Your task to perform on an android device: What's the weather going to be this weekend? Image 0: 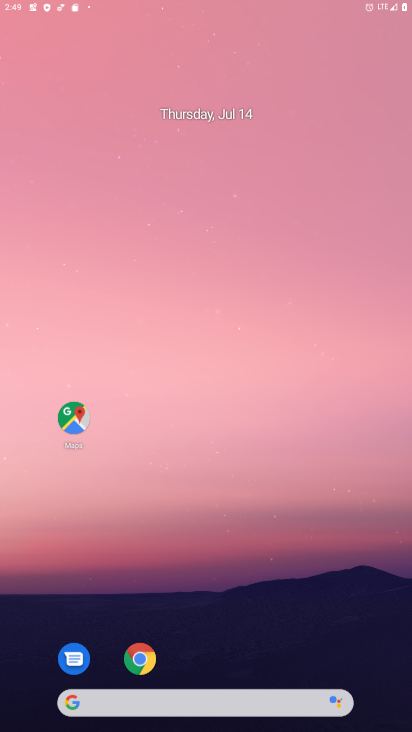
Step 0: press home button
Your task to perform on an android device: What's the weather going to be this weekend? Image 1: 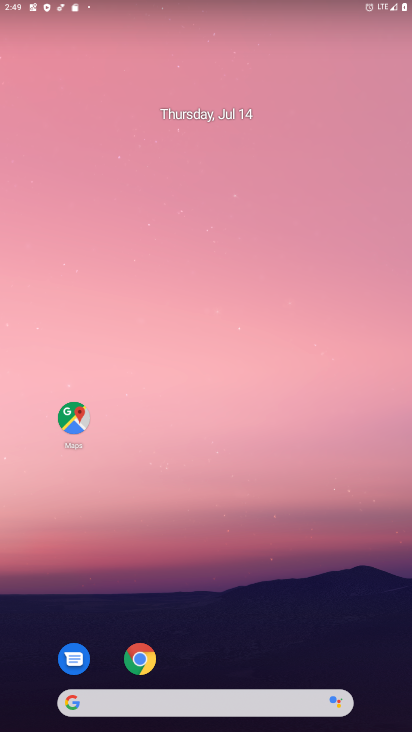
Step 1: click (67, 706)
Your task to perform on an android device: What's the weather going to be this weekend? Image 2: 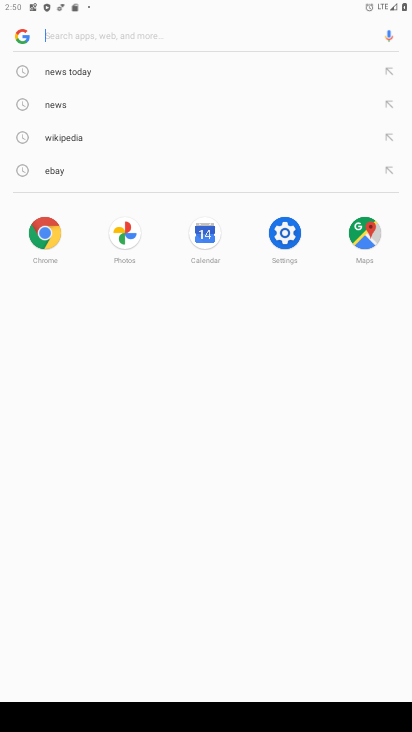
Step 2: type "weather going to be this weekend?"
Your task to perform on an android device: What's the weather going to be this weekend? Image 3: 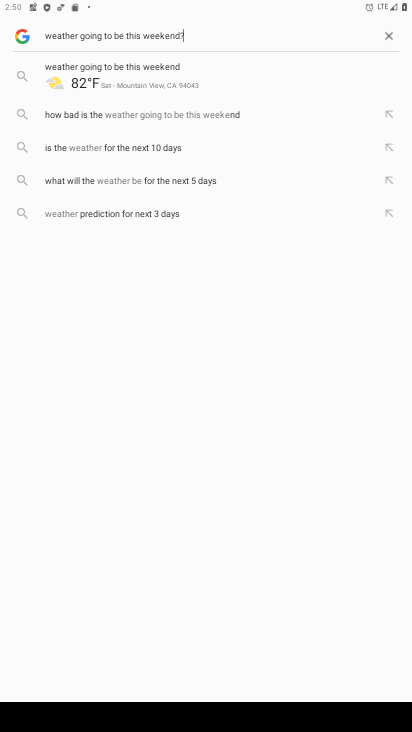
Step 3: press enter
Your task to perform on an android device: What's the weather going to be this weekend? Image 4: 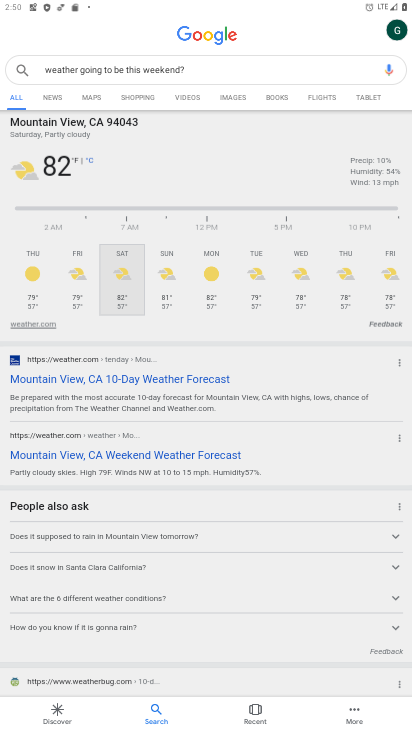
Step 4: task complete